Your task to perform on an android device: Open wifi settings Image 0: 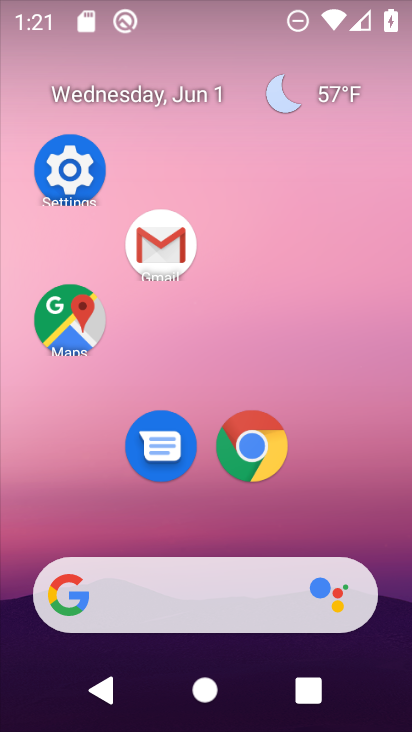
Step 0: click (85, 173)
Your task to perform on an android device: Open wifi settings Image 1: 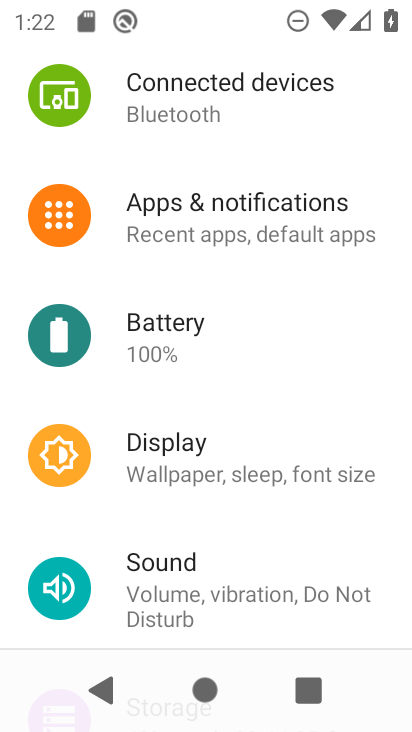
Step 1: drag from (318, 184) to (333, 618)
Your task to perform on an android device: Open wifi settings Image 2: 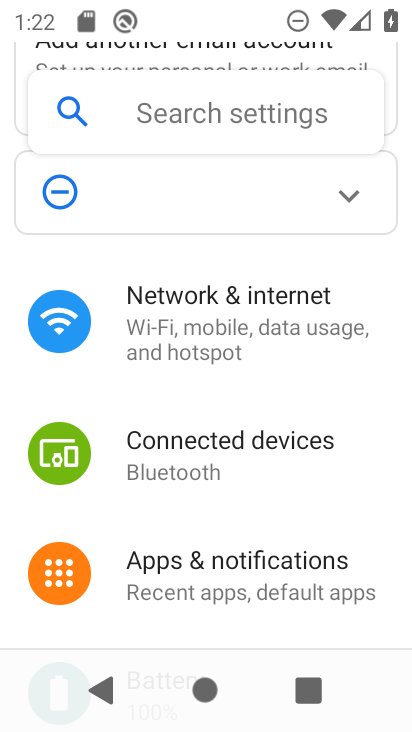
Step 2: click (326, 346)
Your task to perform on an android device: Open wifi settings Image 3: 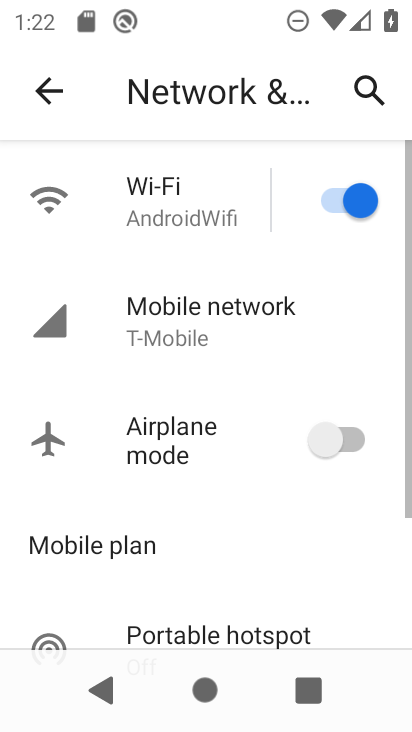
Step 3: click (187, 219)
Your task to perform on an android device: Open wifi settings Image 4: 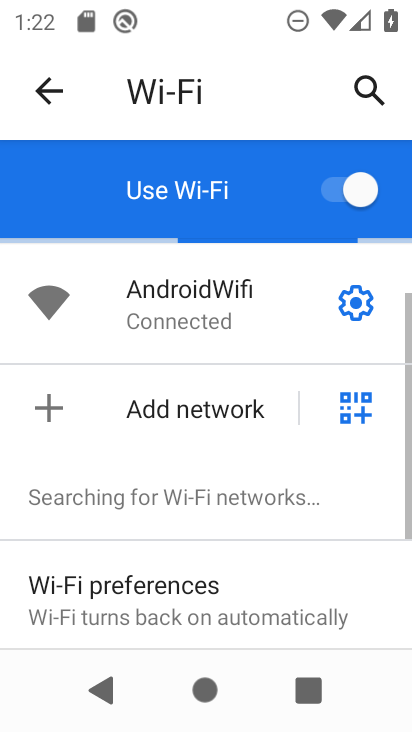
Step 4: click (360, 294)
Your task to perform on an android device: Open wifi settings Image 5: 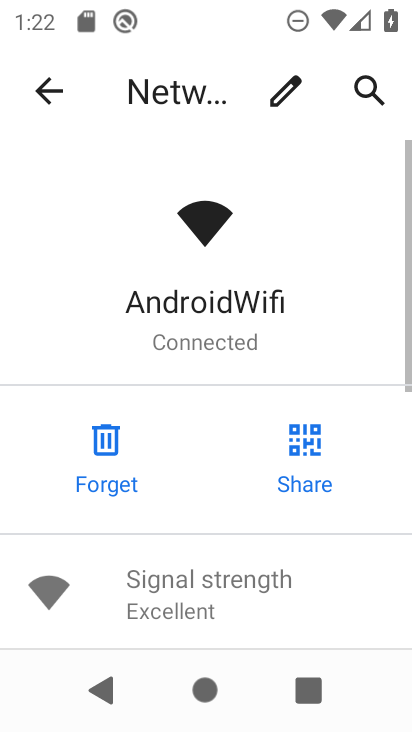
Step 5: task complete